Your task to perform on an android device: Search for the most popular coffee table on Crate & Barrel Image 0: 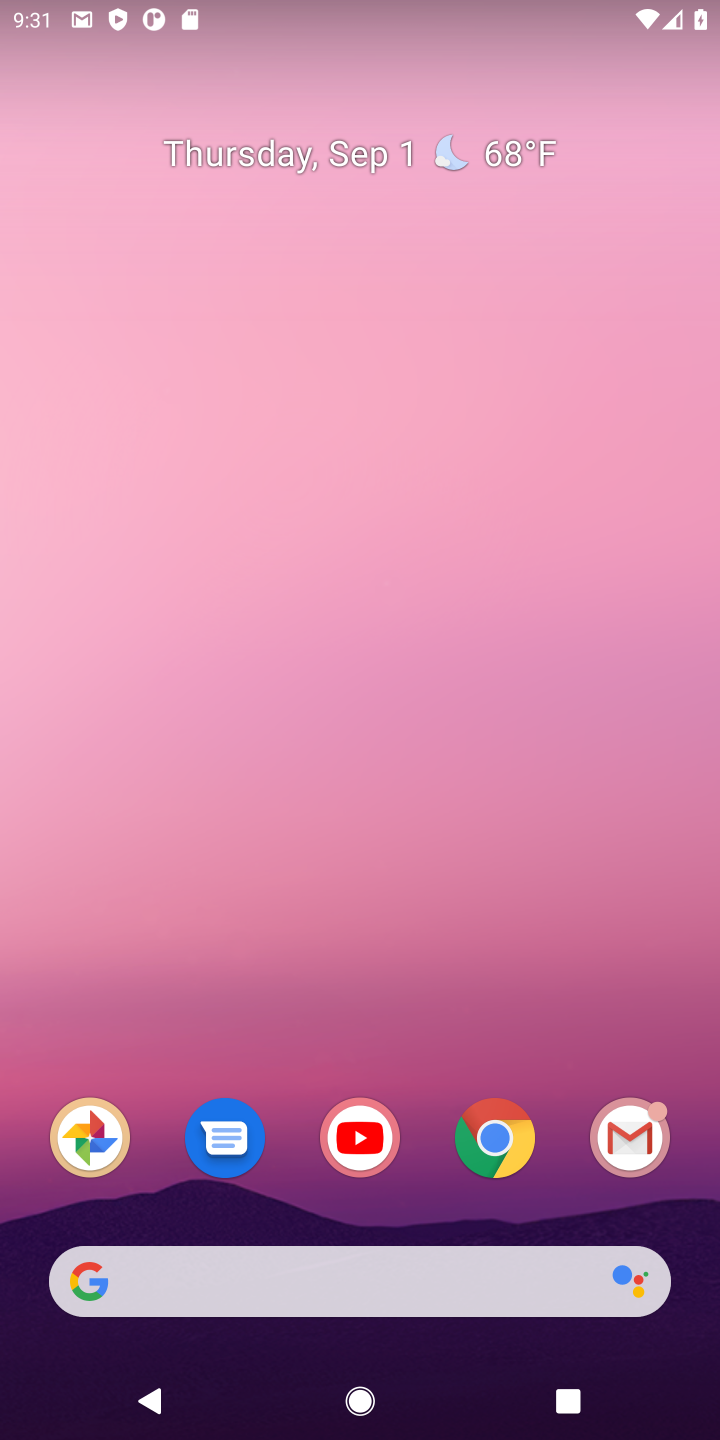
Step 0: click (506, 1141)
Your task to perform on an android device: Search for the most popular coffee table on Crate & Barrel Image 1: 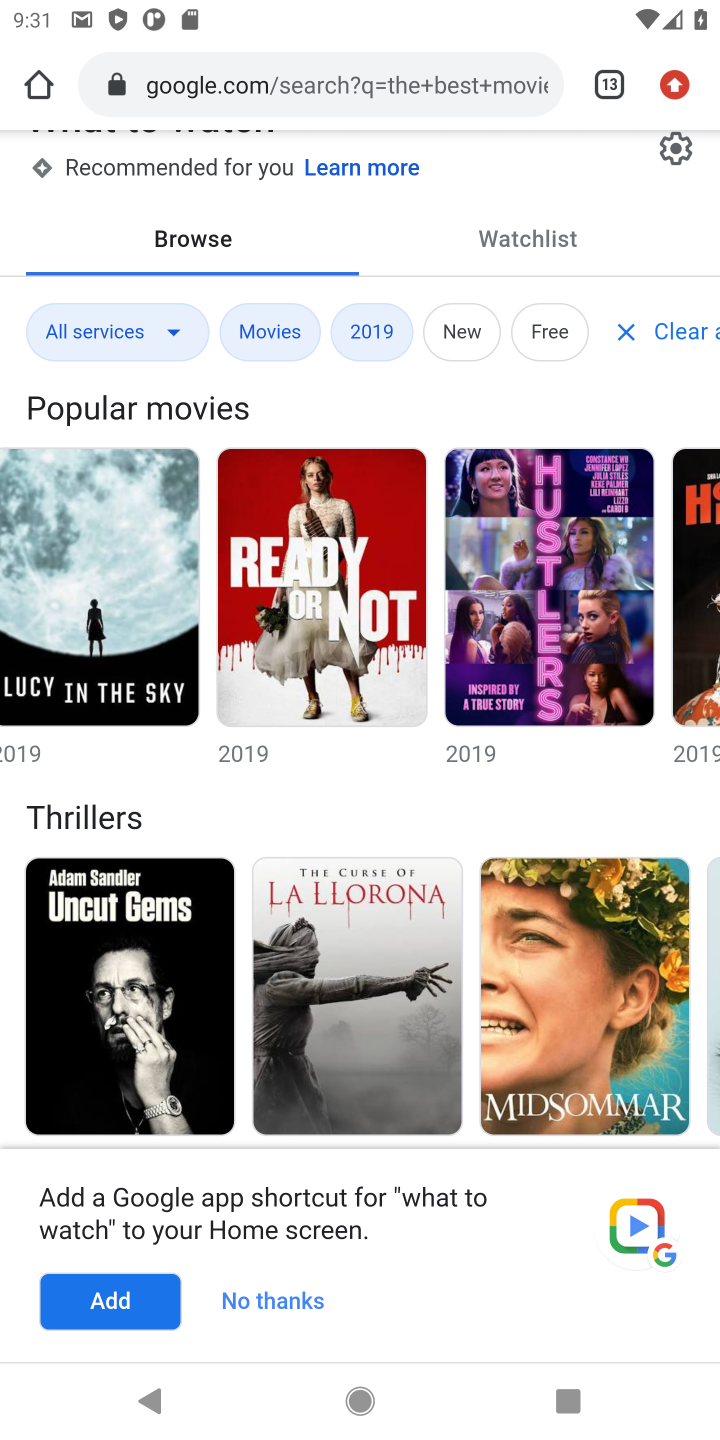
Step 1: click (612, 82)
Your task to perform on an android device: Search for the most popular coffee table on Crate & Barrel Image 2: 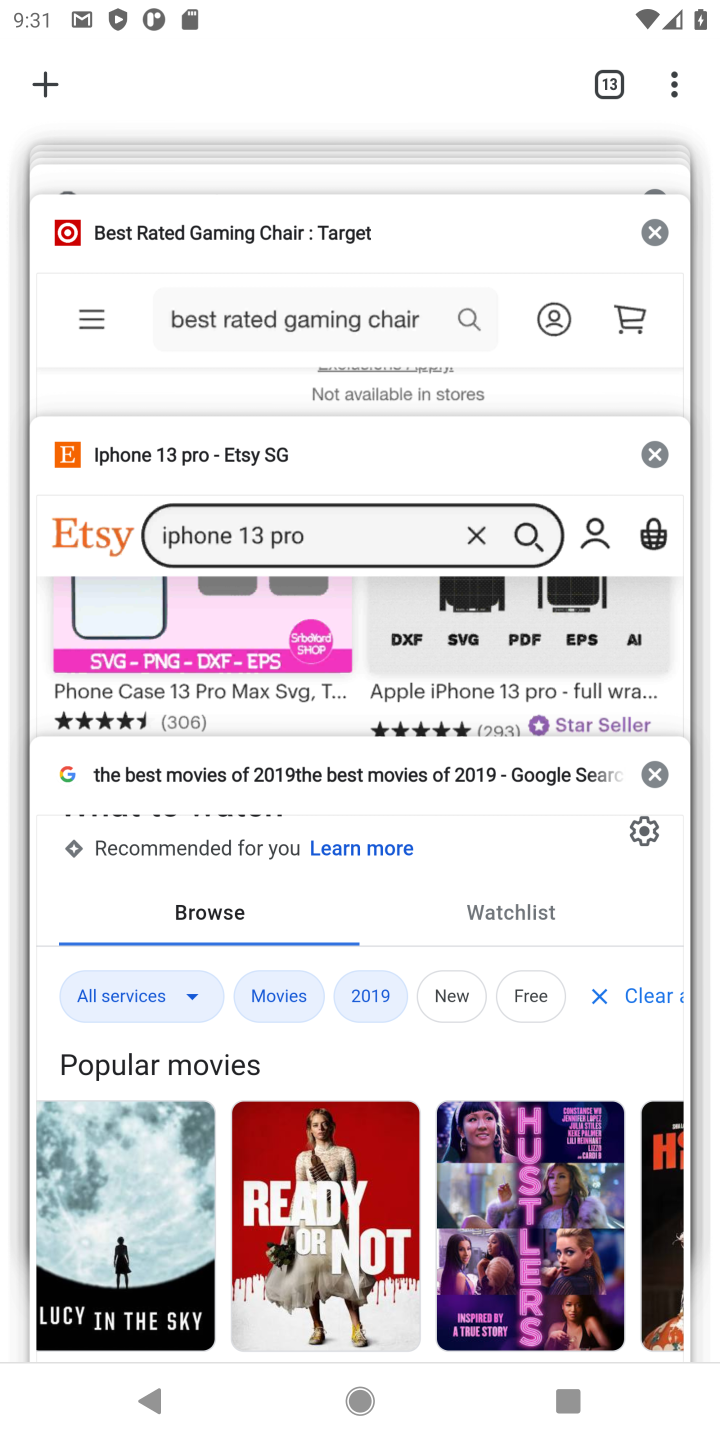
Step 2: drag from (344, 307) to (388, 759)
Your task to perform on an android device: Search for the most popular coffee table on Crate & Barrel Image 3: 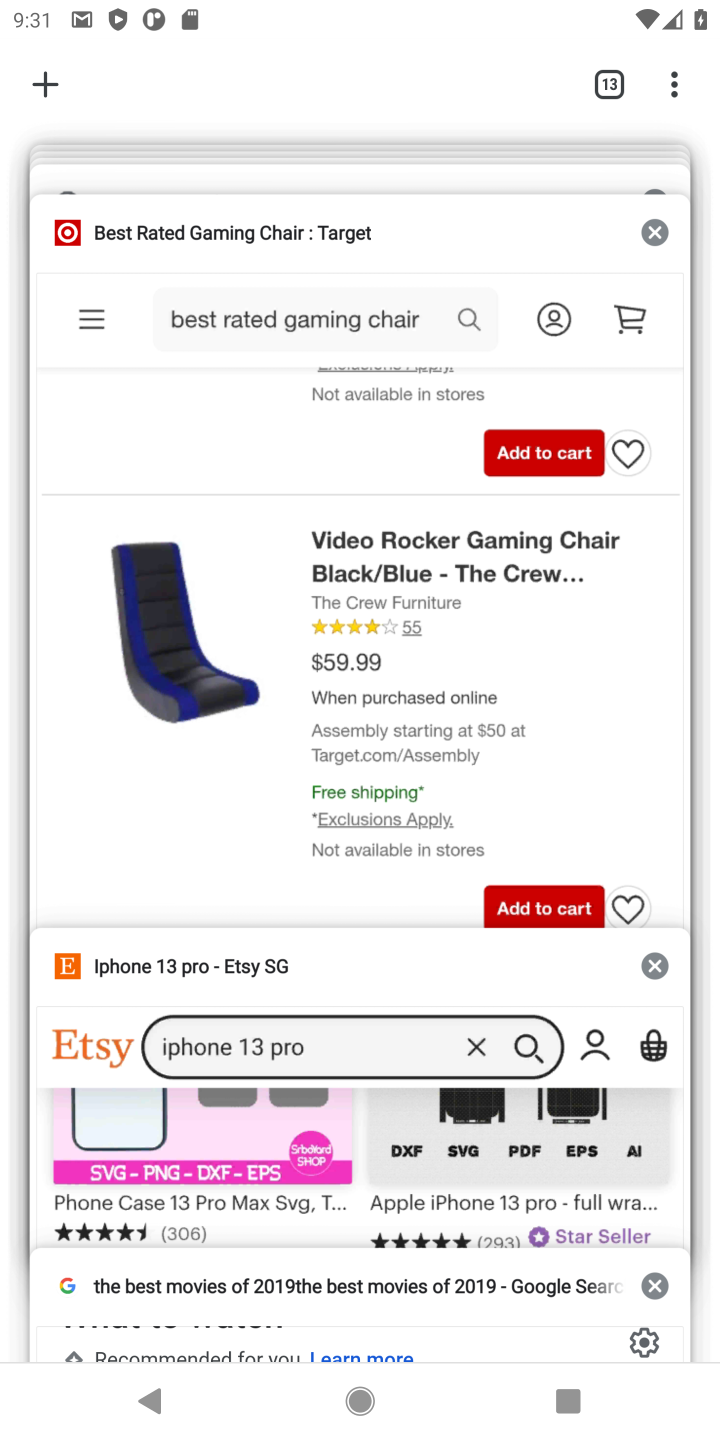
Step 3: drag from (371, 252) to (439, 1200)
Your task to perform on an android device: Search for the most popular coffee table on Crate & Barrel Image 4: 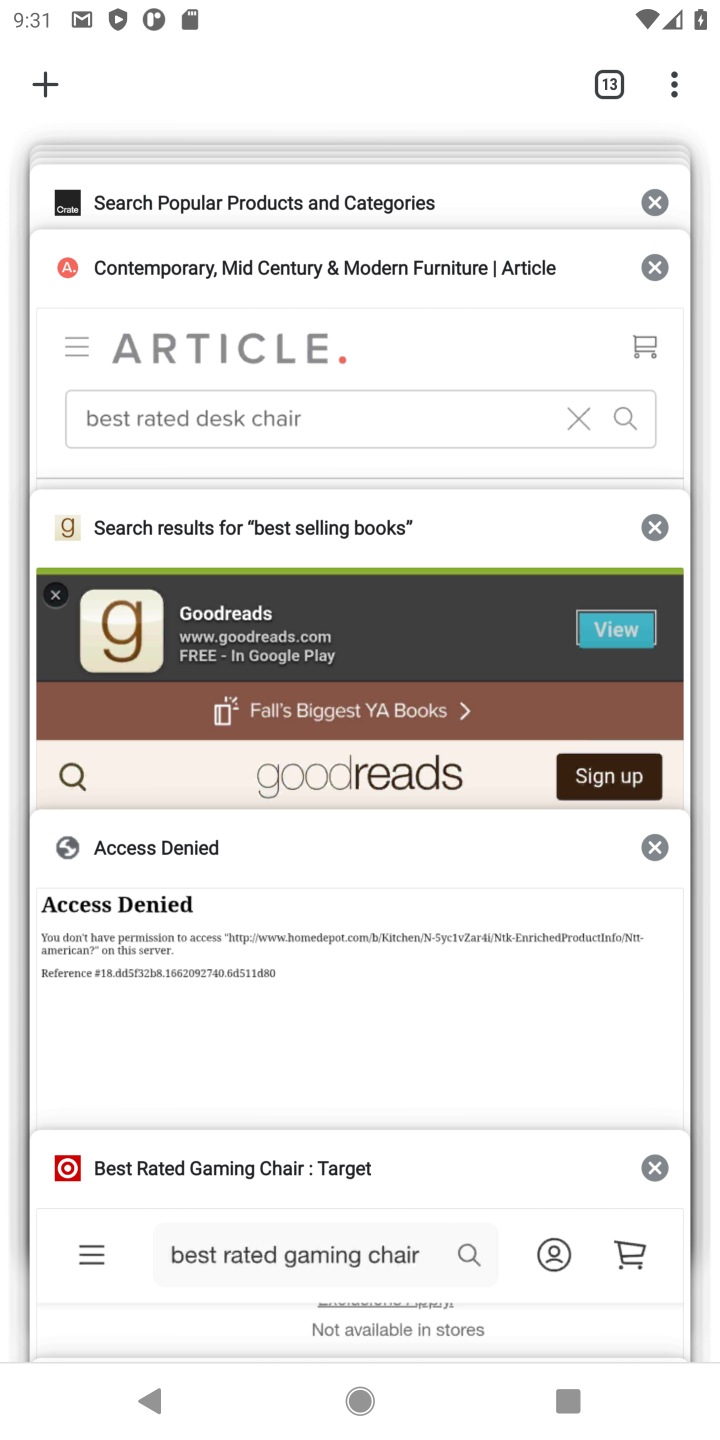
Step 4: drag from (303, 250) to (367, 992)
Your task to perform on an android device: Search for the most popular coffee table on Crate & Barrel Image 5: 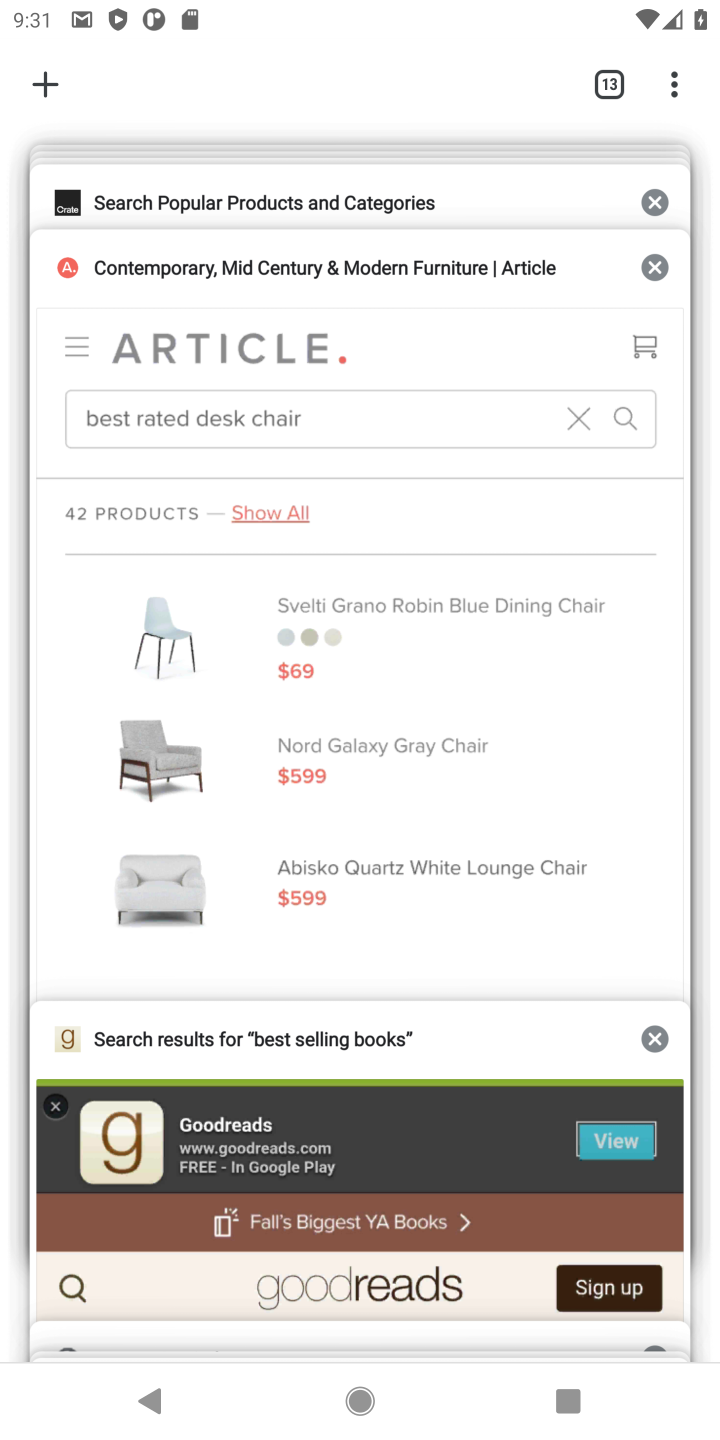
Step 5: drag from (380, 278) to (396, 1056)
Your task to perform on an android device: Search for the most popular coffee table on Crate & Barrel Image 6: 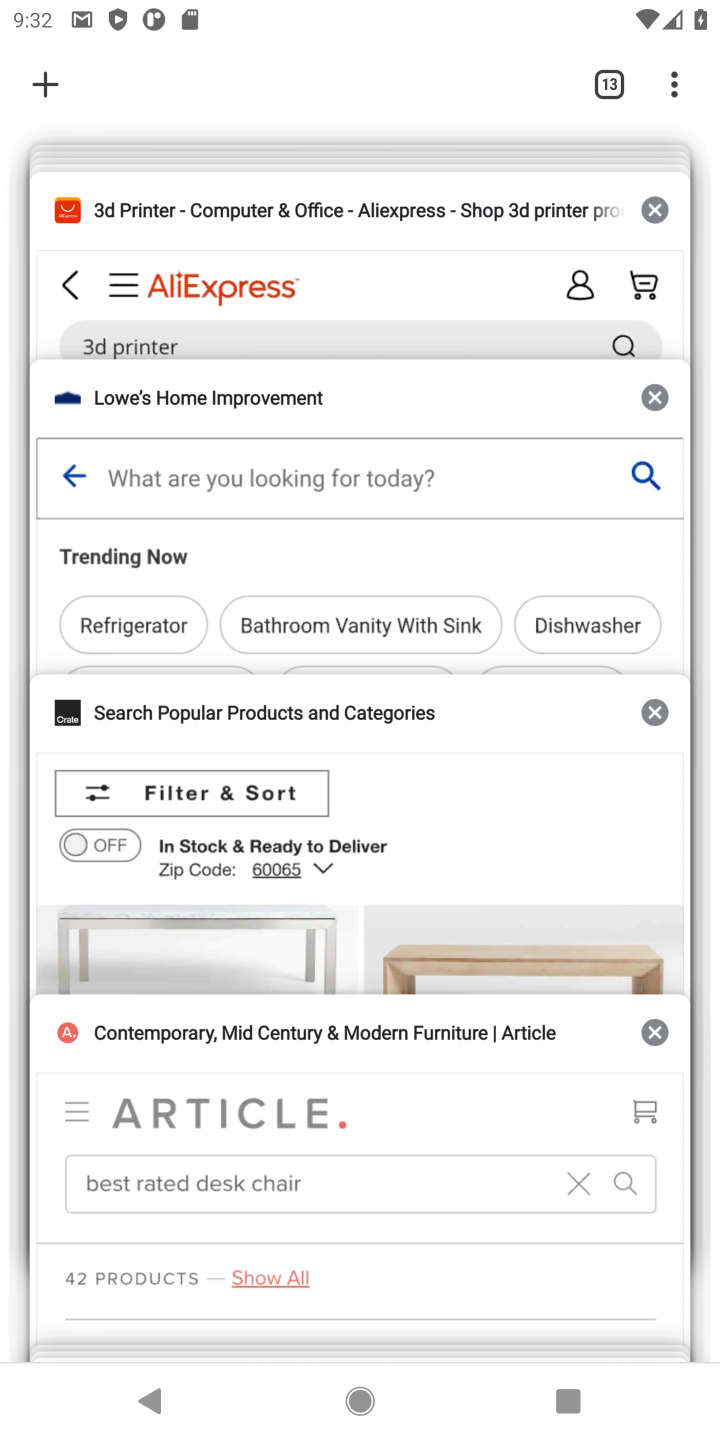
Step 6: click (423, 858)
Your task to perform on an android device: Search for the most popular coffee table on Crate & Barrel Image 7: 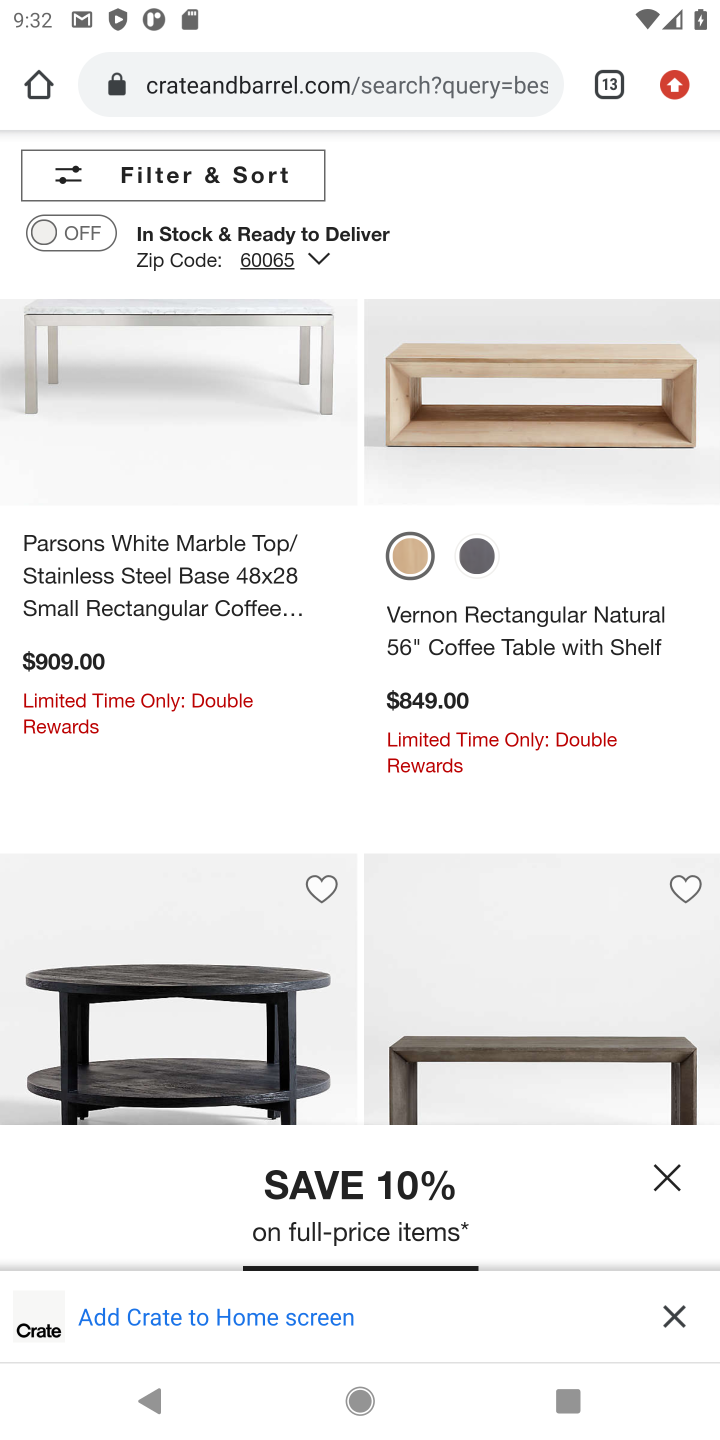
Step 7: drag from (423, 869) to (452, 1136)
Your task to perform on an android device: Search for the most popular coffee table on Crate & Barrel Image 8: 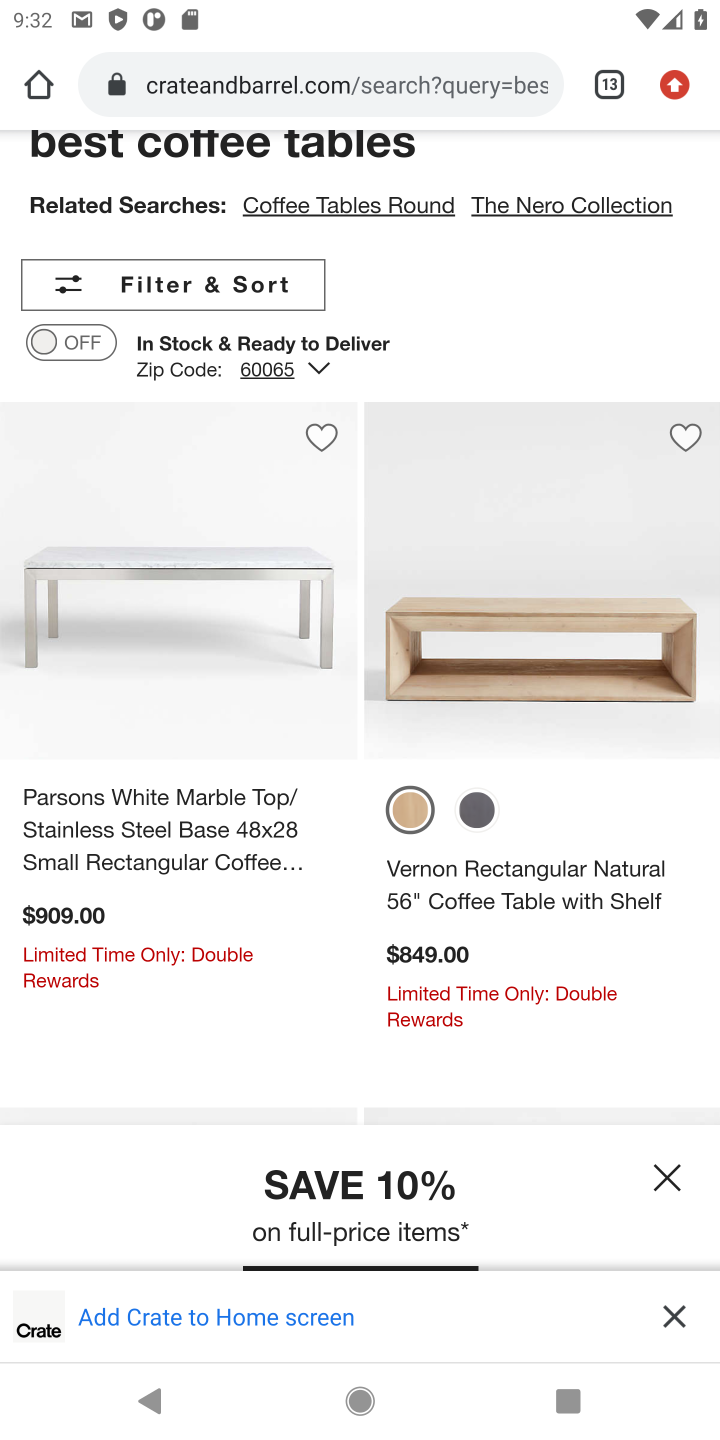
Step 8: drag from (483, 337) to (517, 813)
Your task to perform on an android device: Search for the most popular coffee table on Crate & Barrel Image 9: 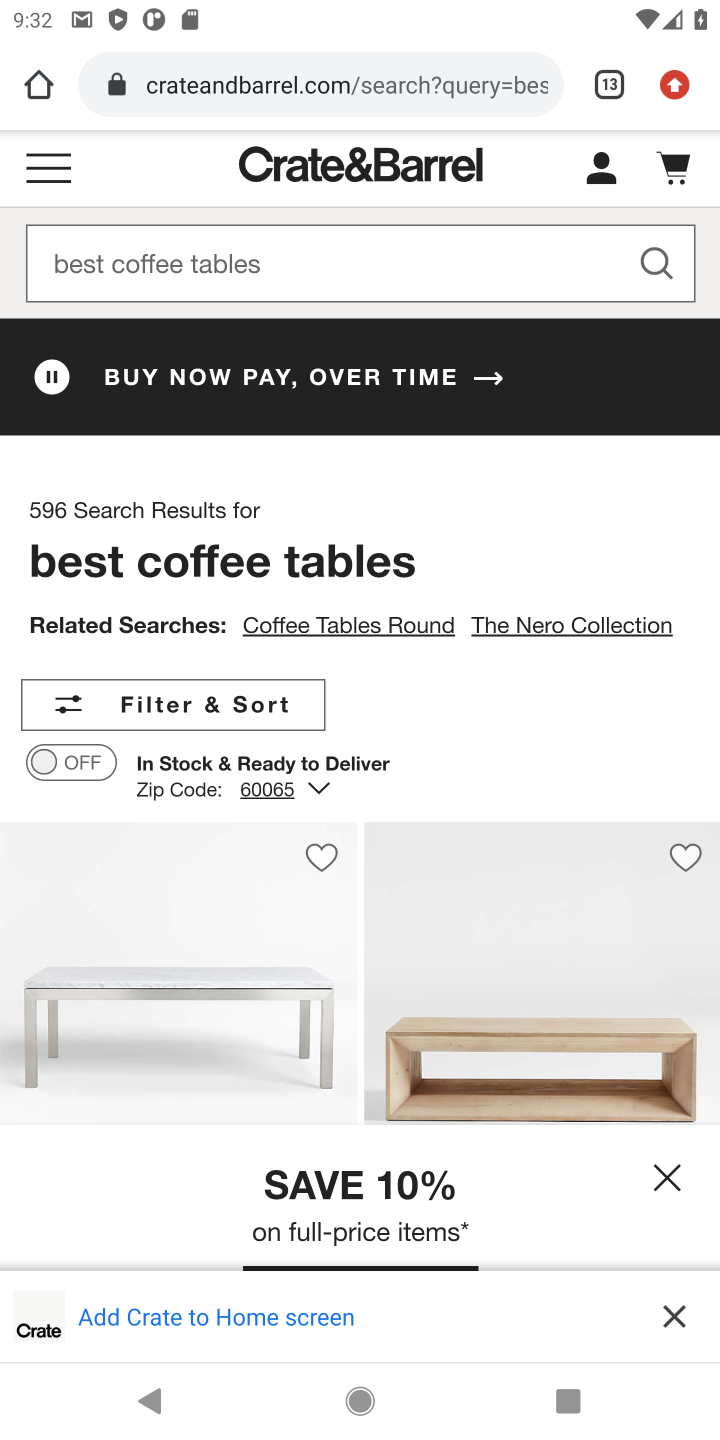
Step 9: click (468, 274)
Your task to perform on an android device: Search for the most popular coffee table on Crate & Barrel Image 10: 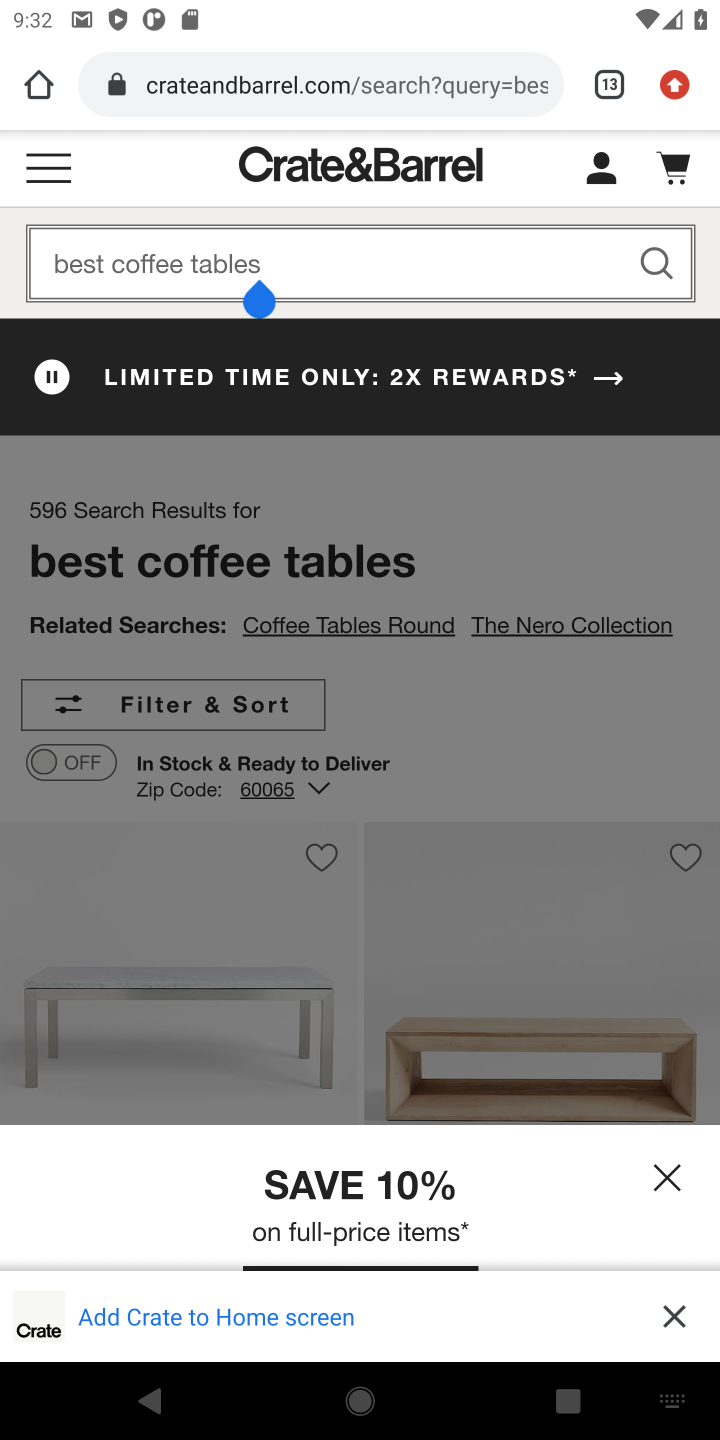
Step 10: click (86, 272)
Your task to perform on an android device: Search for the most popular coffee table on Crate & Barrel Image 11: 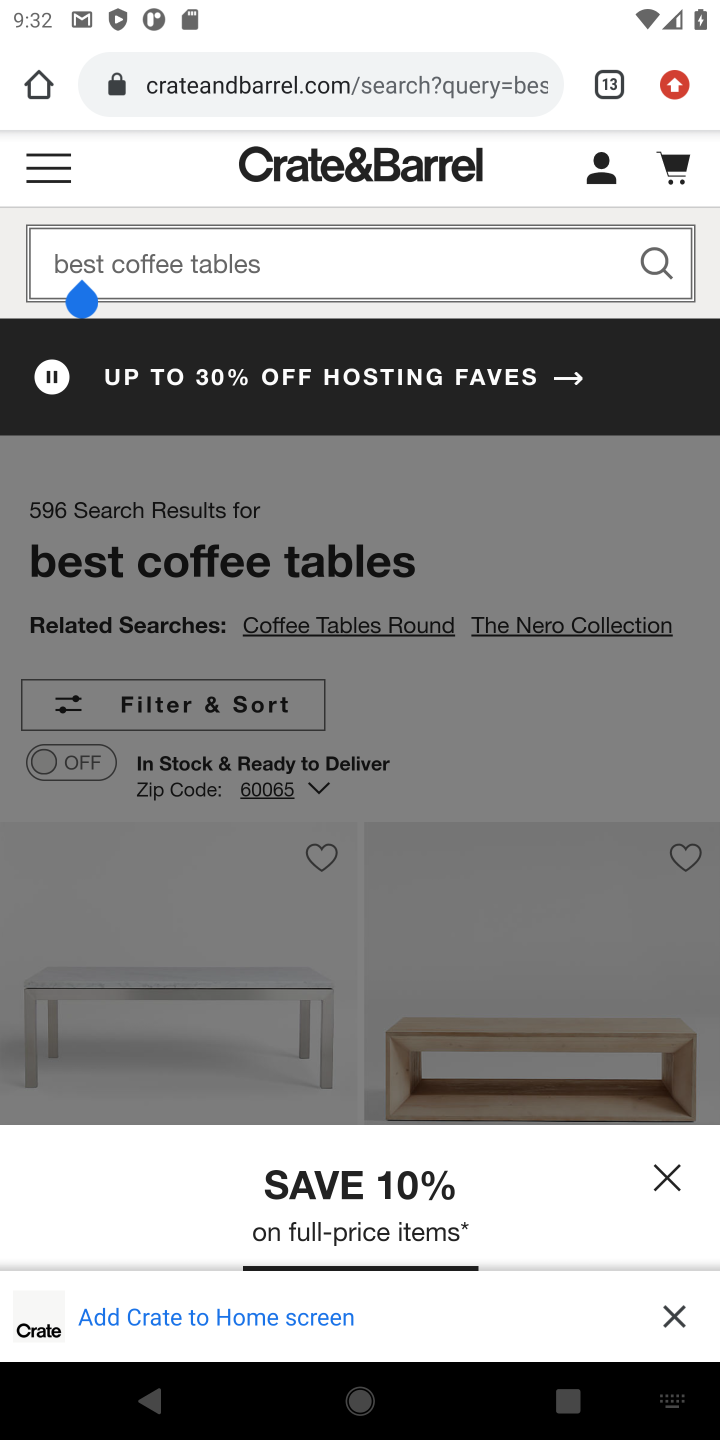
Step 11: click (305, 164)
Your task to perform on an android device: Search for the most popular coffee table on Crate & Barrel Image 12: 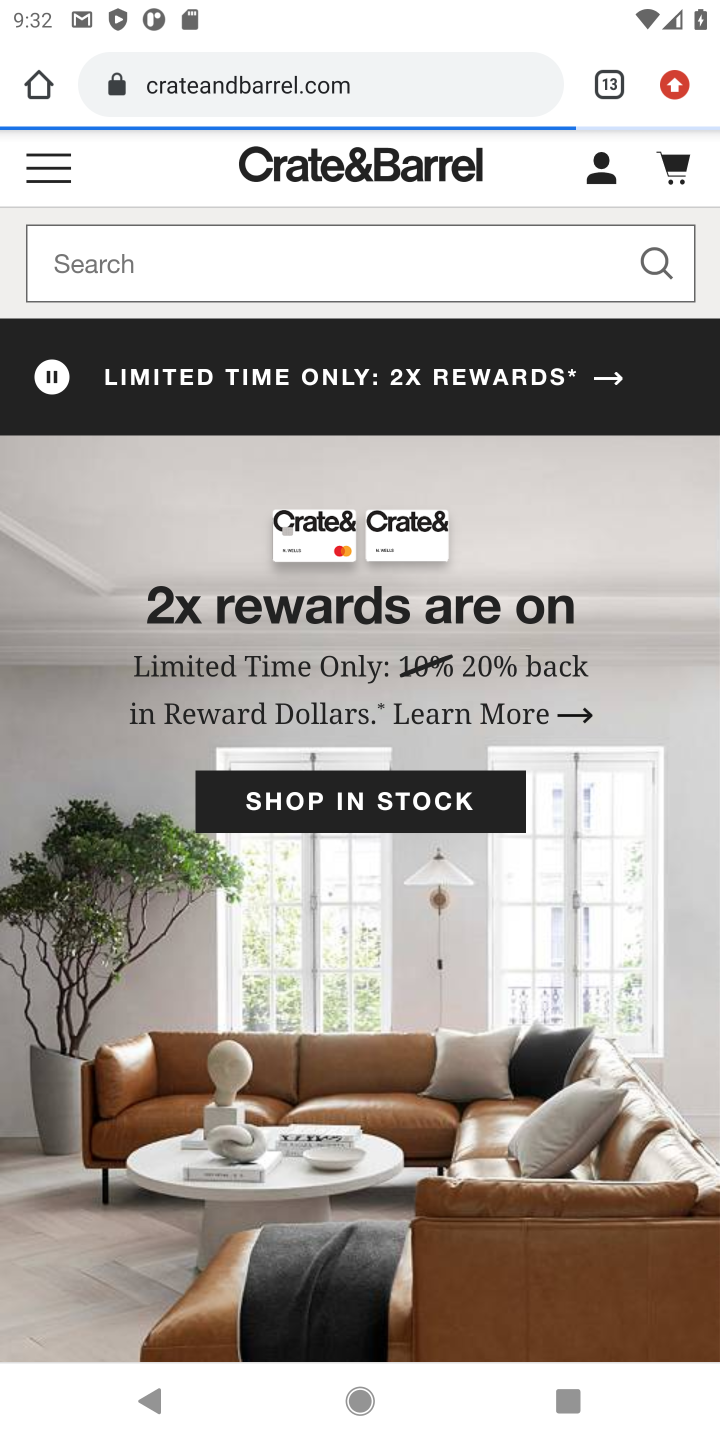
Step 12: click (212, 262)
Your task to perform on an android device: Search for the most popular coffee table on Crate & Barrel Image 13: 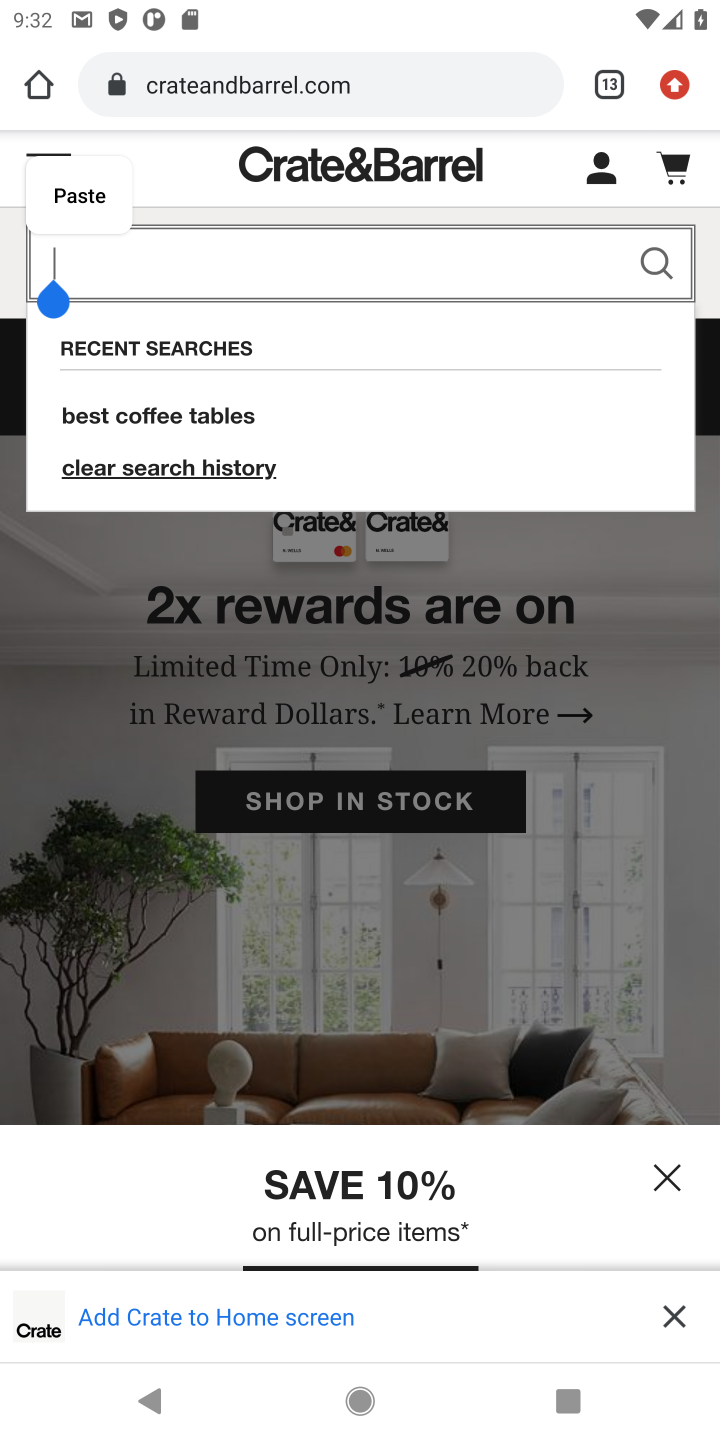
Step 13: click (286, 273)
Your task to perform on an android device: Search for the most popular coffee table on Crate & Barrel Image 14: 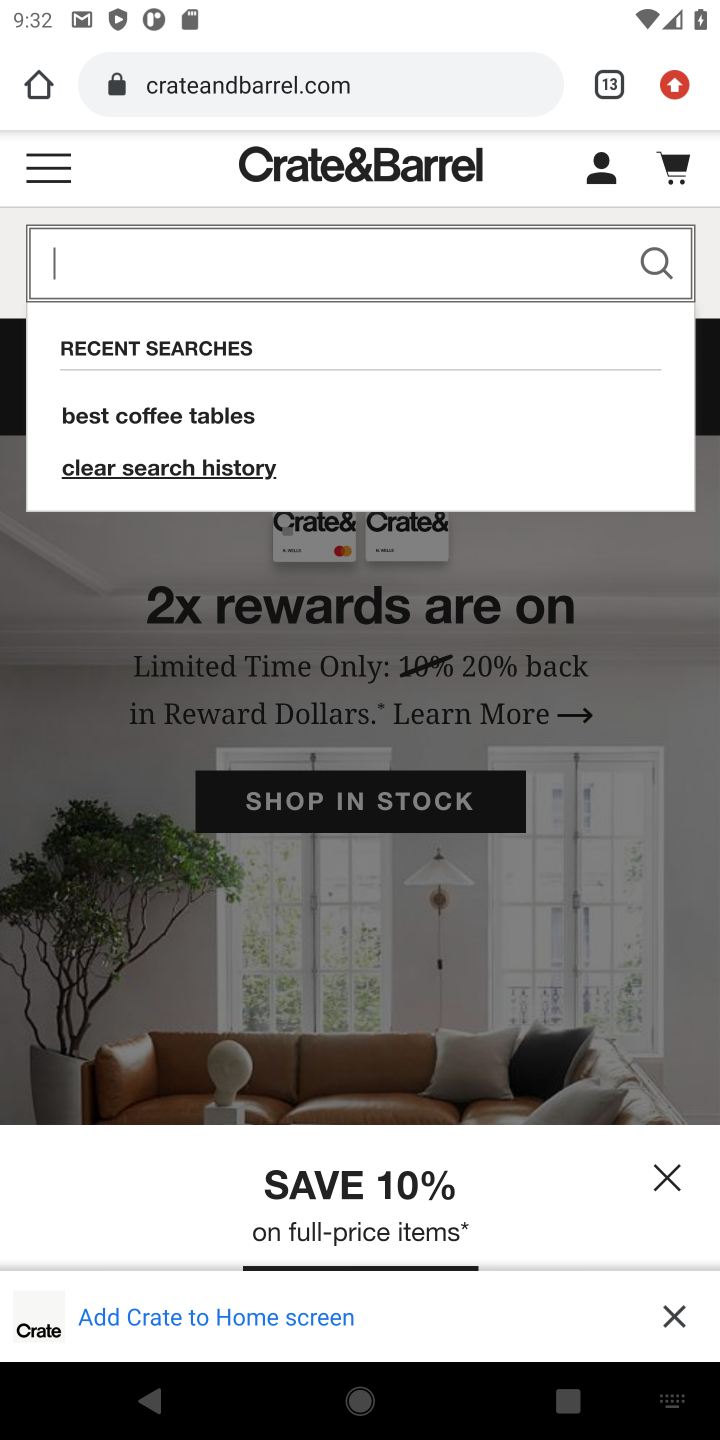
Step 14: type "most popular coffee table"
Your task to perform on an android device: Search for the most popular coffee table on Crate & Barrel Image 15: 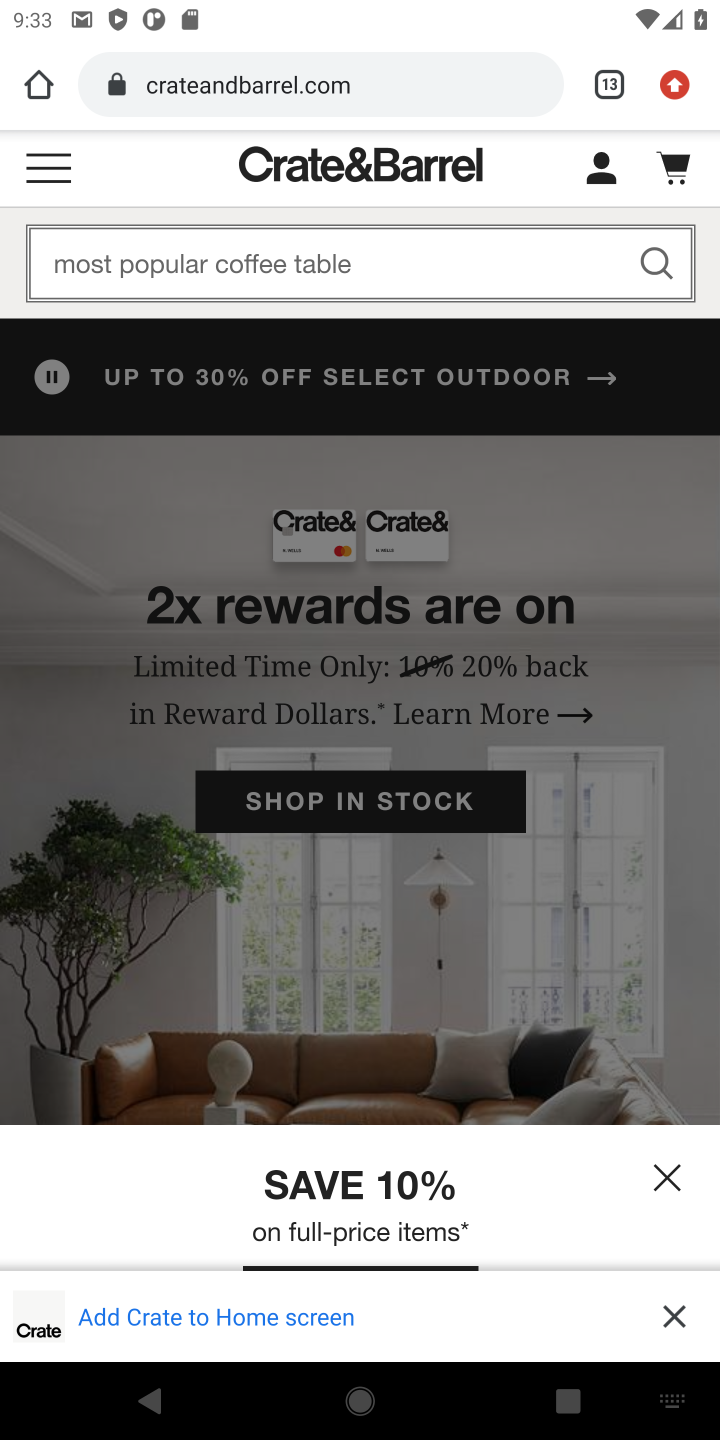
Step 15: click (662, 270)
Your task to perform on an android device: Search for the most popular coffee table on Crate & Barrel Image 16: 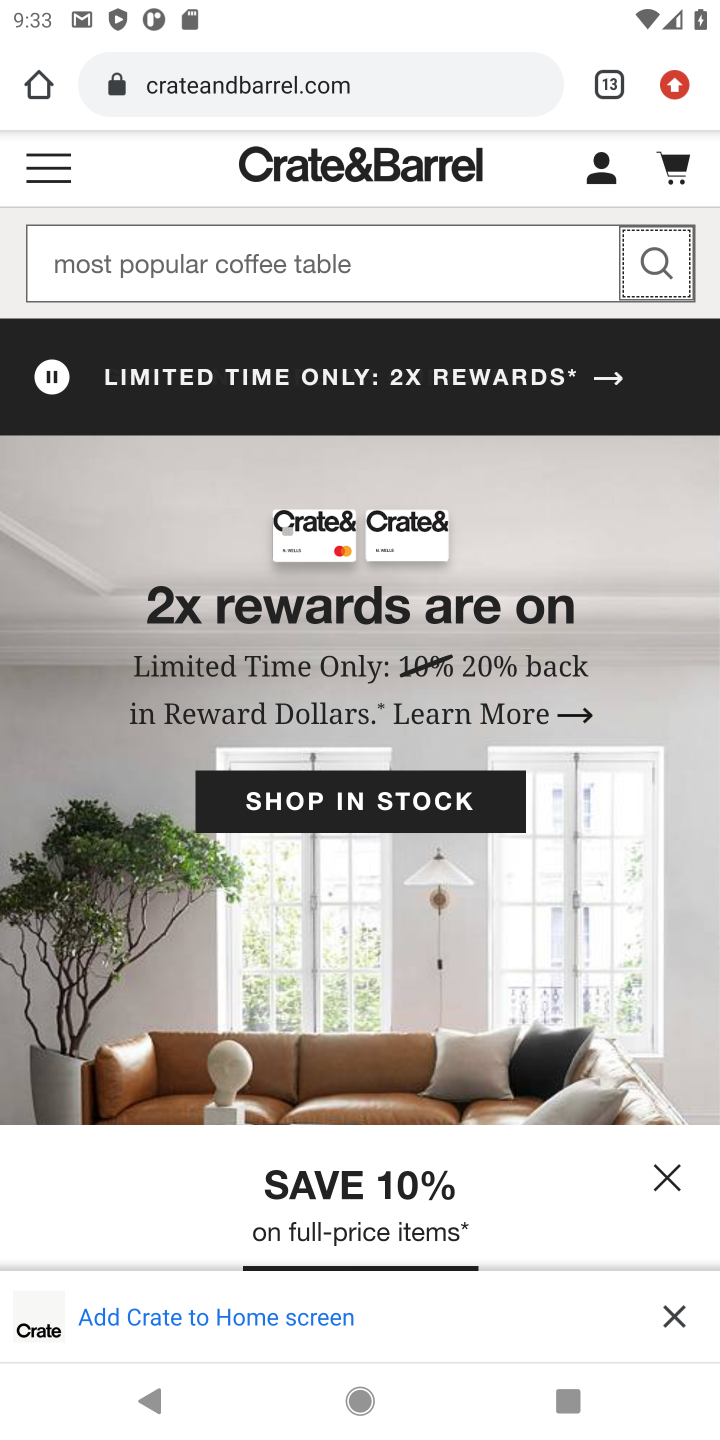
Step 16: click (664, 268)
Your task to perform on an android device: Search for the most popular coffee table on Crate & Barrel Image 17: 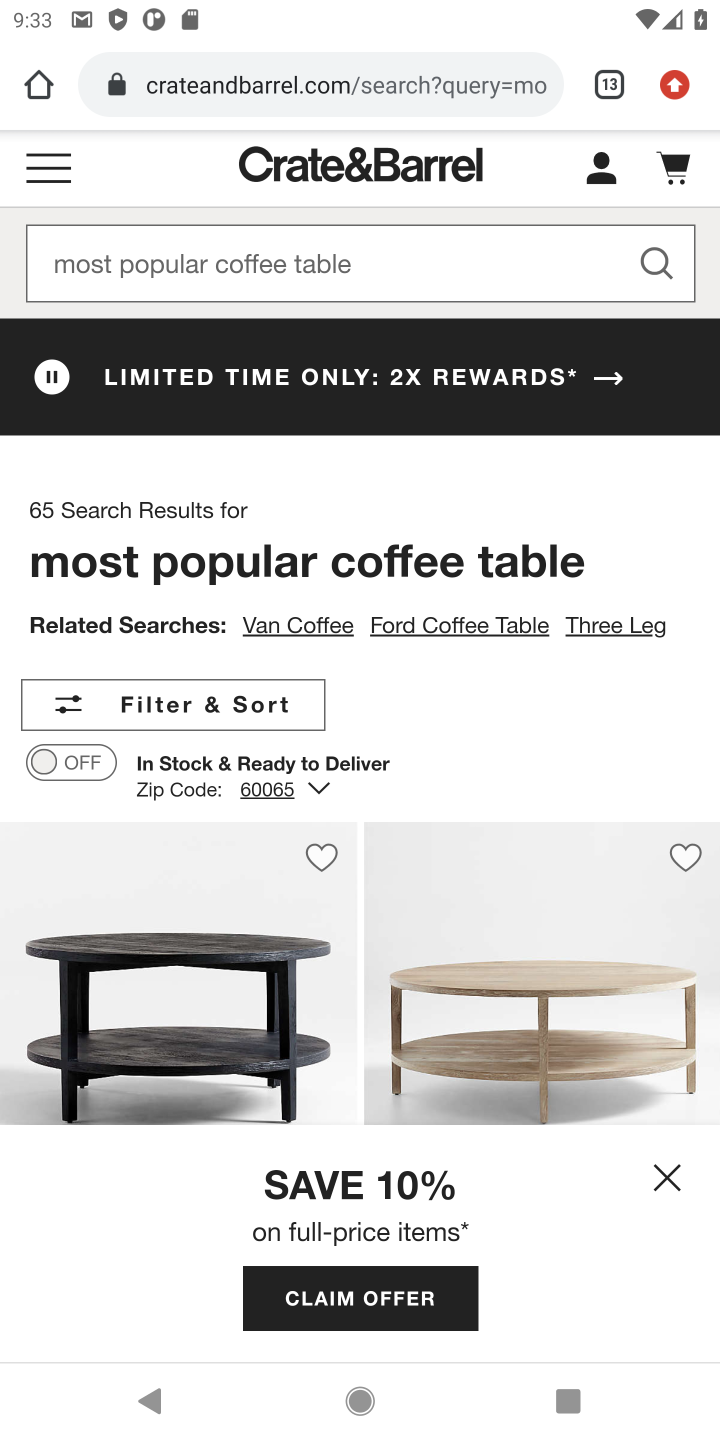
Step 17: click (662, 1170)
Your task to perform on an android device: Search for the most popular coffee table on Crate & Barrel Image 18: 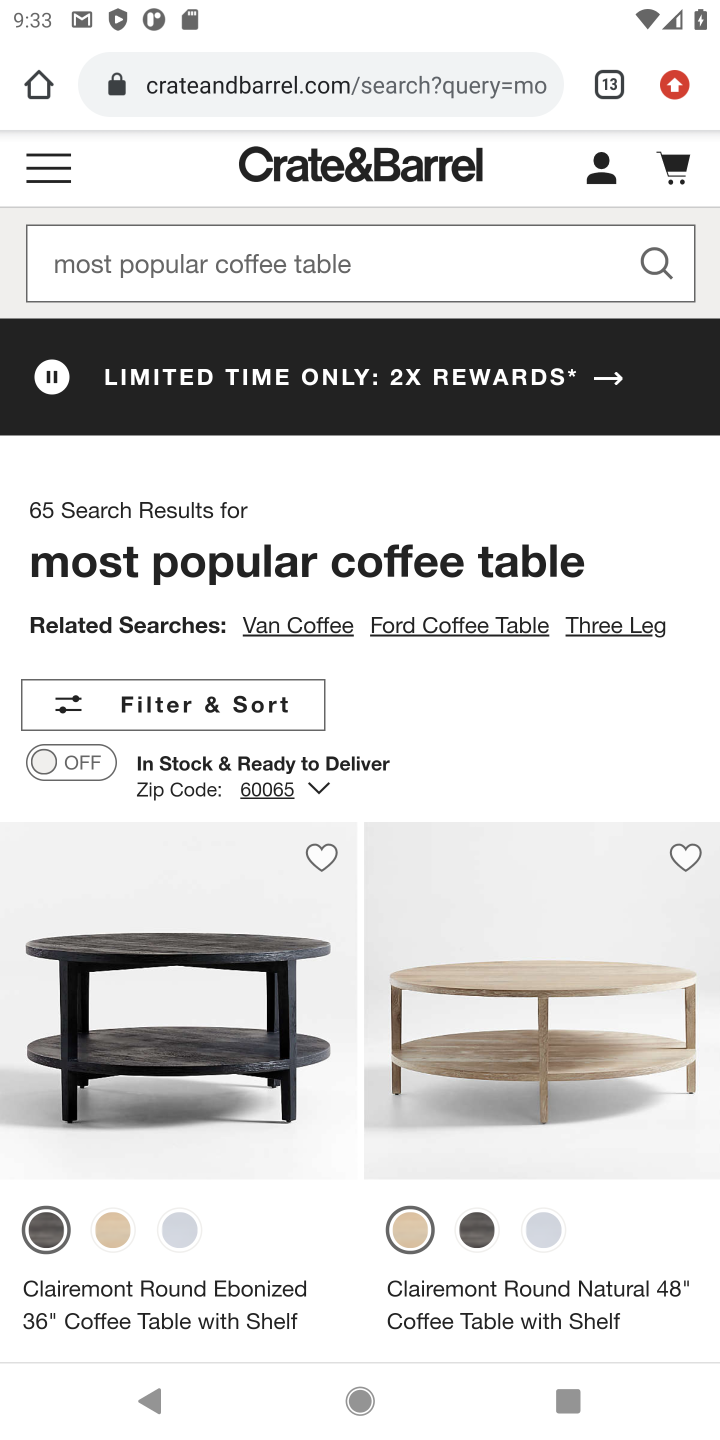
Step 18: task complete